Your task to perform on an android device: What's on my calendar tomorrow? Image 0: 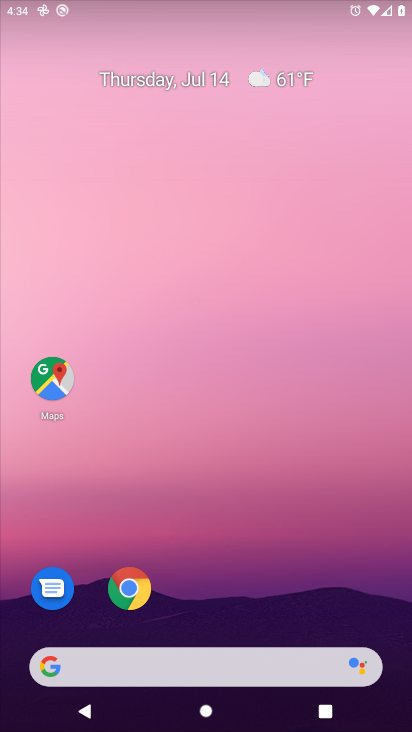
Step 0: press home button
Your task to perform on an android device: What's on my calendar tomorrow? Image 1: 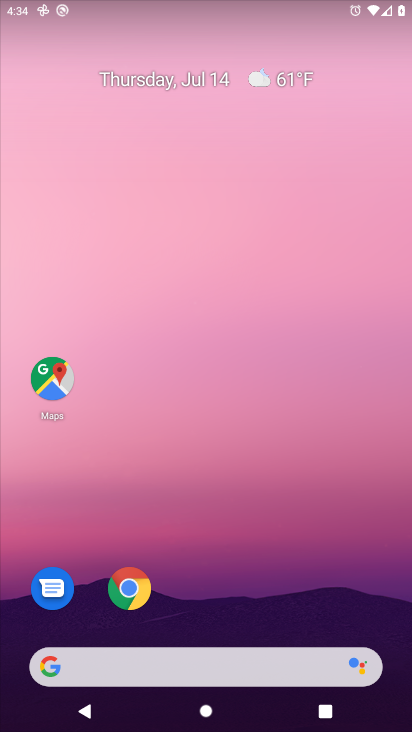
Step 1: drag from (235, 623) to (290, 187)
Your task to perform on an android device: What's on my calendar tomorrow? Image 2: 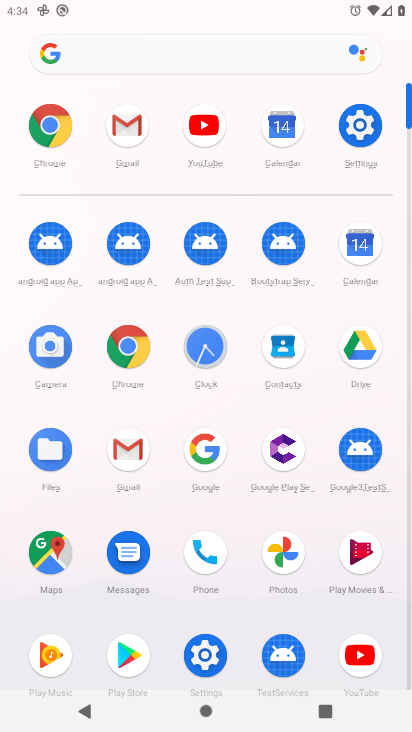
Step 2: click (368, 249)
Your task to perform on an android device: What's on my calendar tomorrow? Image 3: 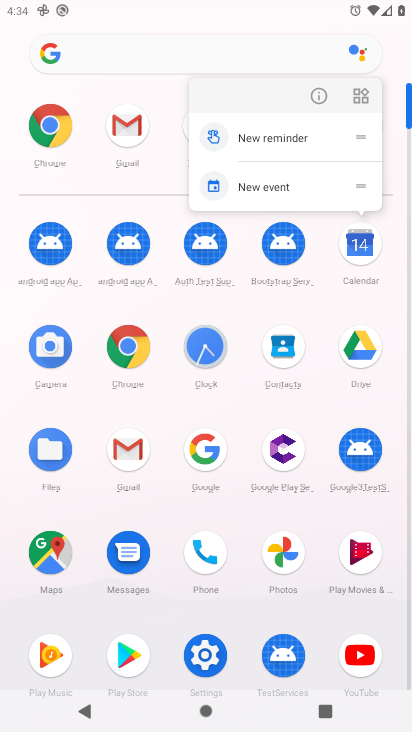
Step 3: click (368, 249)
Your task to perform on an android device: What's on my calendar tomorrow? Image 4: 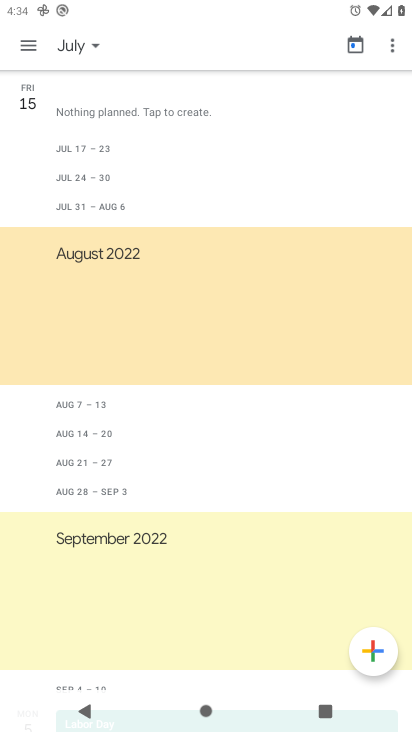
Step 4: click (99, 47)
Your task to perform on an android device: What's on my calendar tomorrow? Image 5: 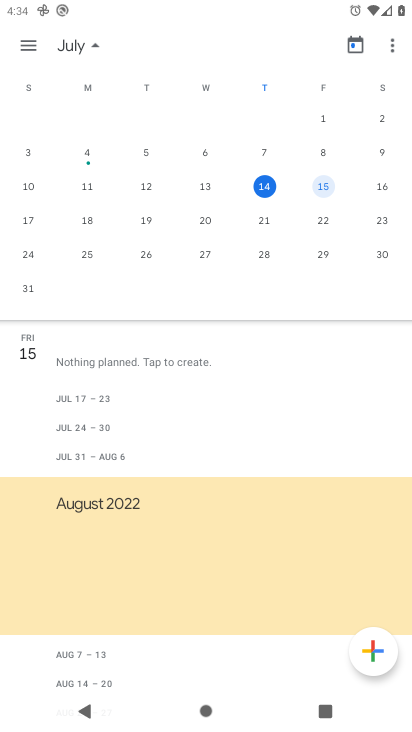
Step 5: click (324, 179)
Your task to perform on an android device: What's on my calendar tomorrow? Image 6: 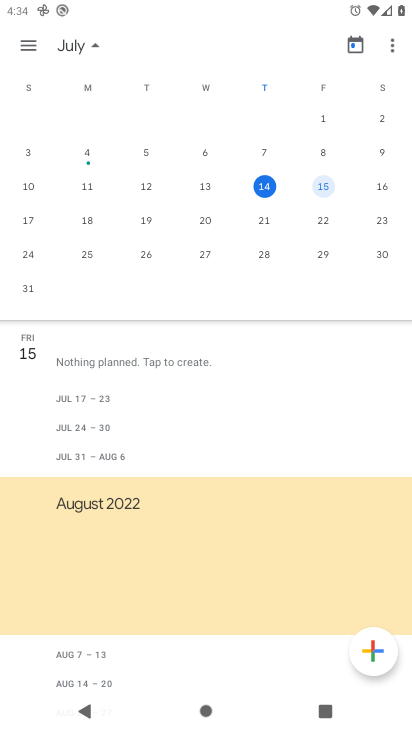
Step 6: task complete